Your task to perform on an android device: snooze an email in the gmail app Image 0: 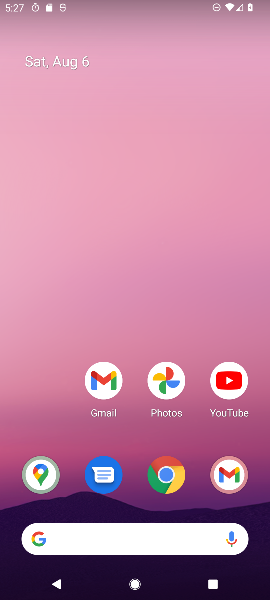
Step 0: drag from (34, 560) to (49, 403)
Your task to perform on an android device: snooze an email in the gmail app Image 1: 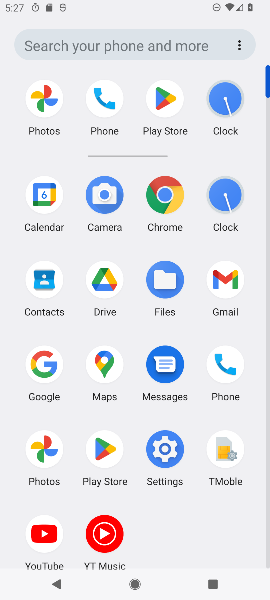
Step 1: click (223, 283)
Your task to perform on an android device: snooze an email in the gmail app Image 2: 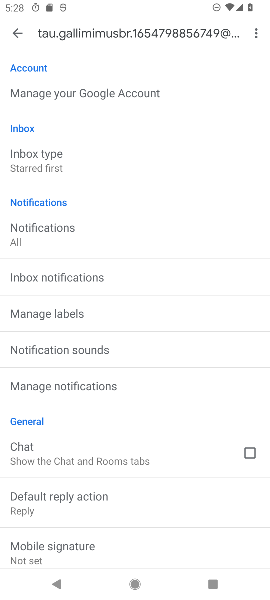
Step 2: click (21, 36)
Your task to perform on an android device: snooze an email in the gmail app Image 3: 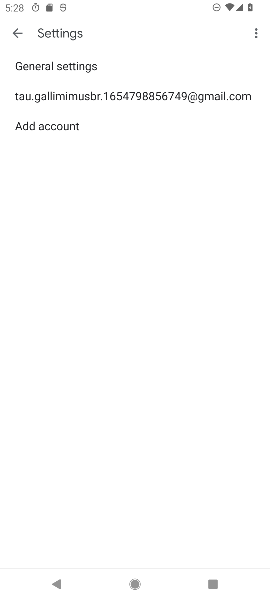
Step 3: click (14, 31)
Your task to perform on an android device: snooze an email in the gmail app Image 4: 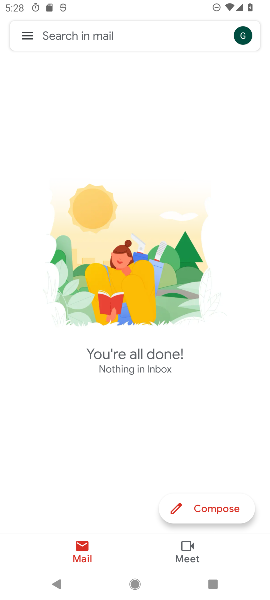
Step 4: click (23, 33)
Your task to perform on an android device: snooze an email in the gmail app Image 5: 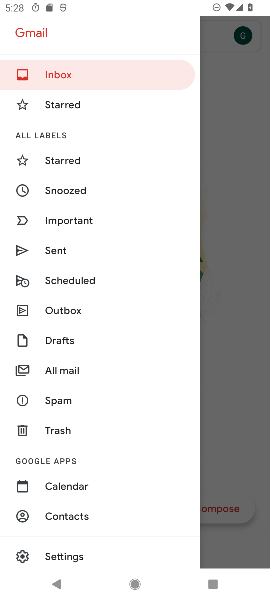
Step 5: click (65, 193)
Your task to perform on an android device: snooze an email in the gmail app Image 6: 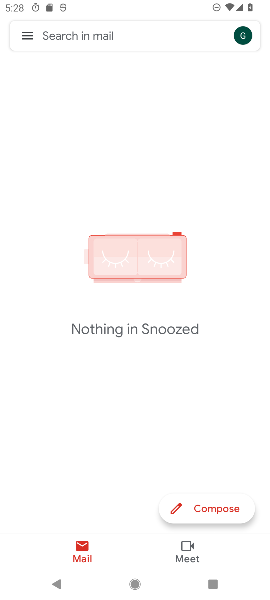
Step 6: task complete